Your task to perform on an android device: Open Google Chrome and click the shortcut for Amazon.com Image 0: 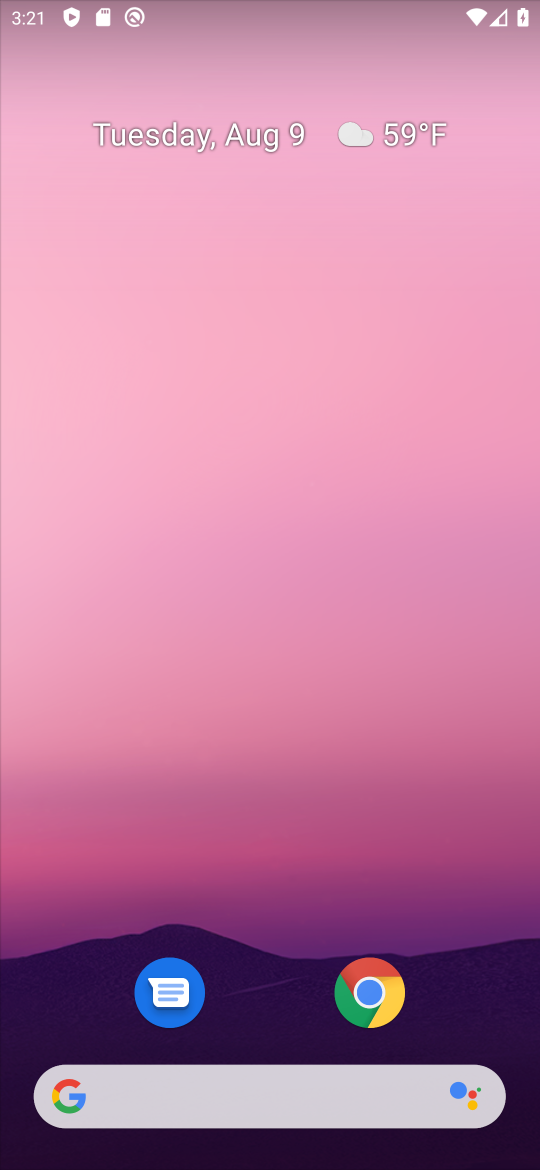
Step 0: click (357, 982)
Your task to perform on an android device: Open Google Chrome and click the shortcut for Amazon.com Image 1: 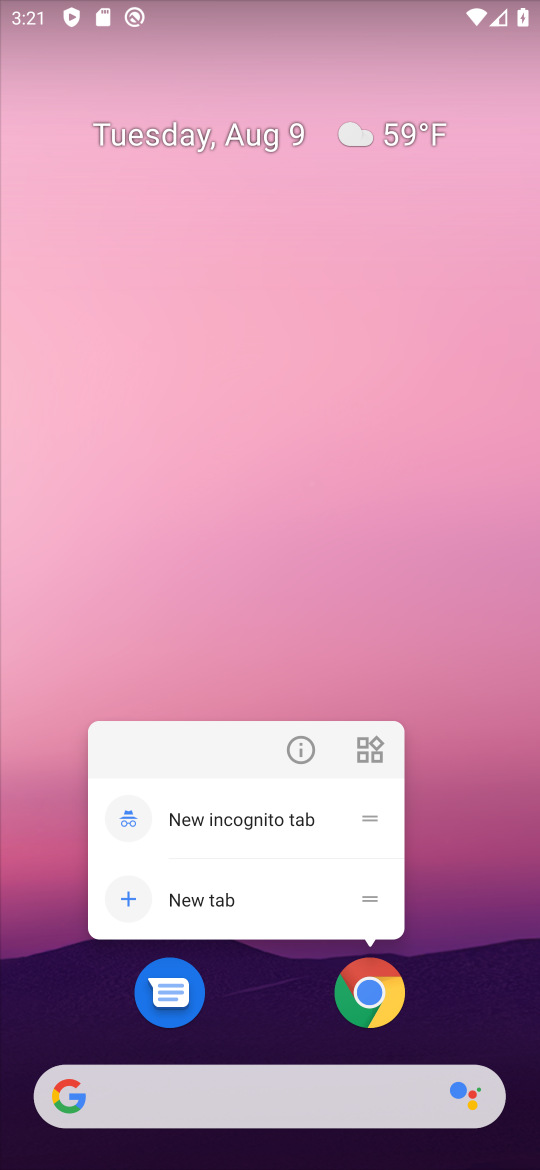
Step 1: click (374, 988)
Your task to perform on an android device: Open Google Chrome and click the shortcut for Amazon.com Image 2: 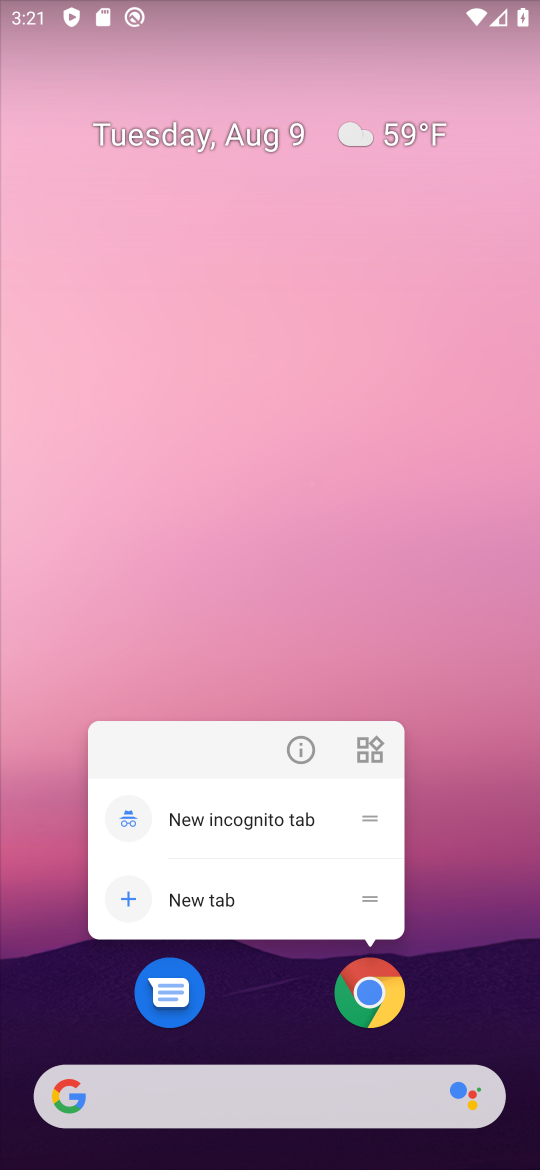
Step 2: click (388, 1000)
Your task to perform on an android device: Open Google Chrome and click the shortcut for Amazon.com Image 3: 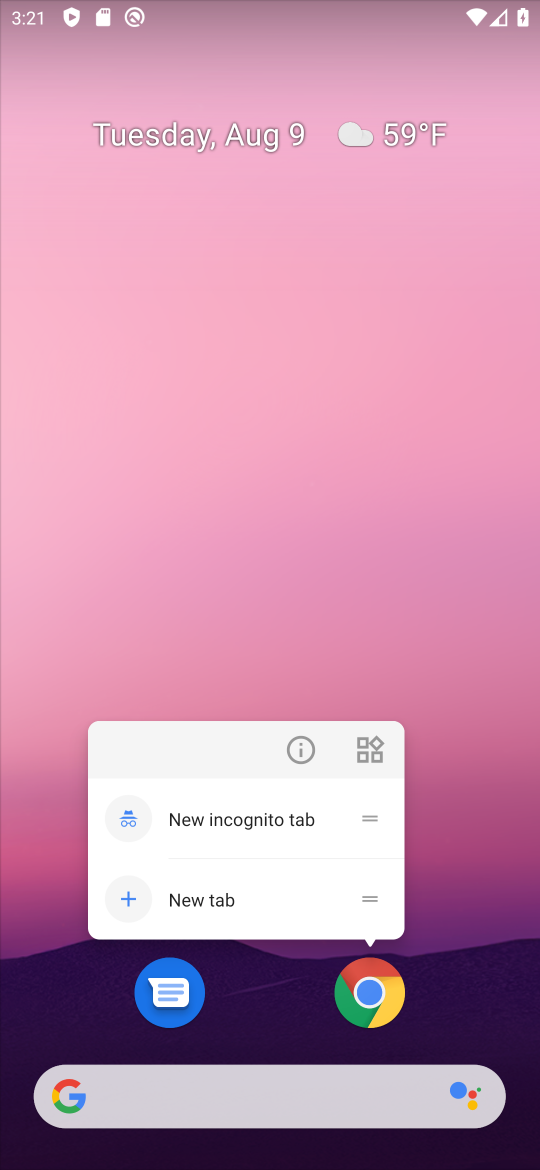
Step 3: click (385, 983)
Your task to perform on an android device: Open Google Chrome and click the shortcut for Amazon.com Image 4: 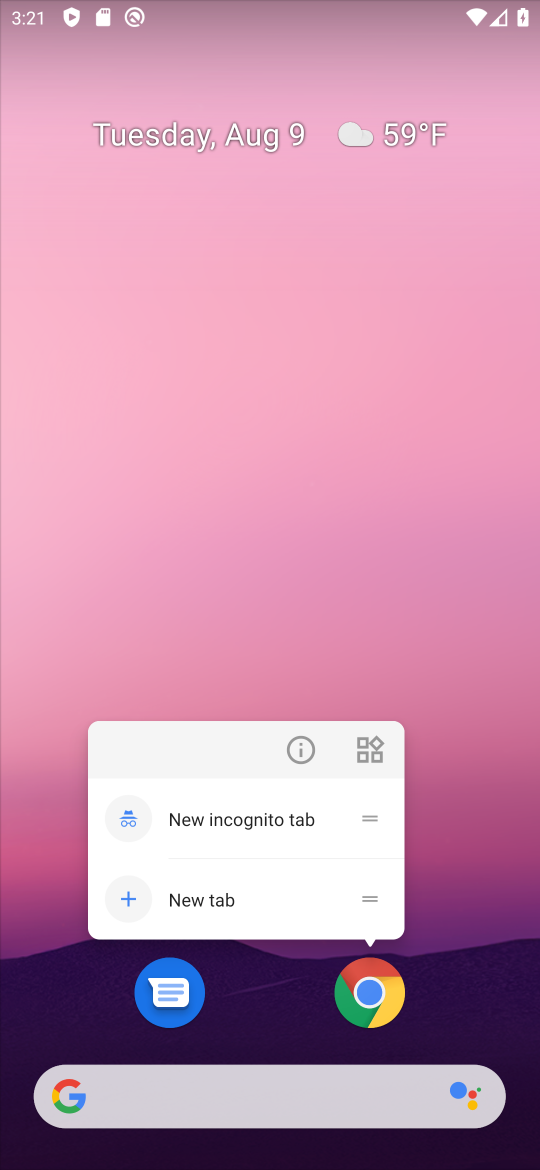
Step 4: click (377, 985)
Your task to perform on an android device: Open Google Chrome and click the shortcut for Amazon.com Image 5: 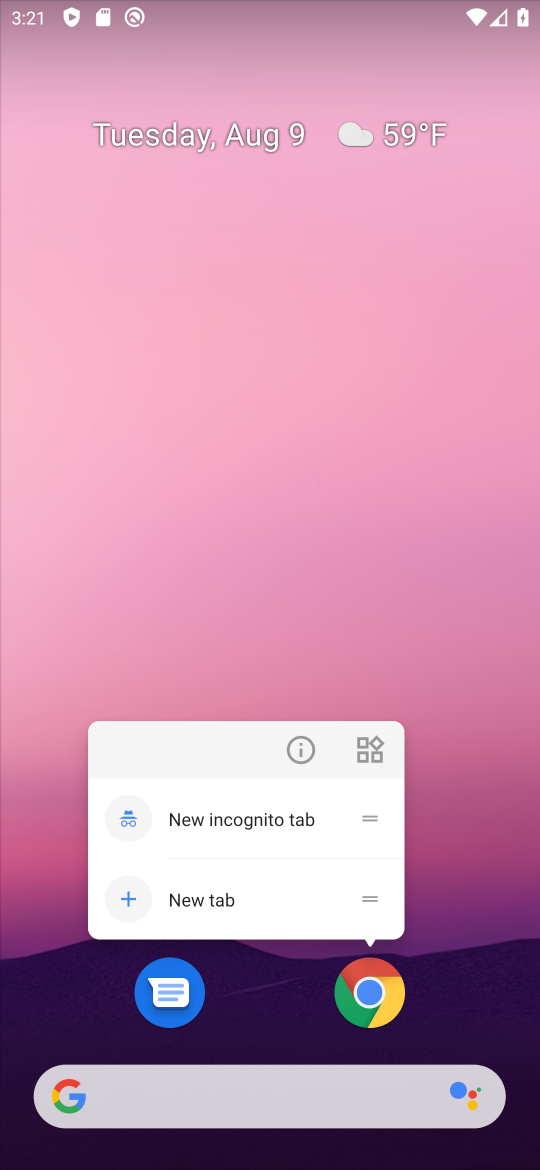
Step 5: click (377, 985)
Your task to perform on an android device: Open Google Chrome and click the shortcut for Amazon.com Image 6: 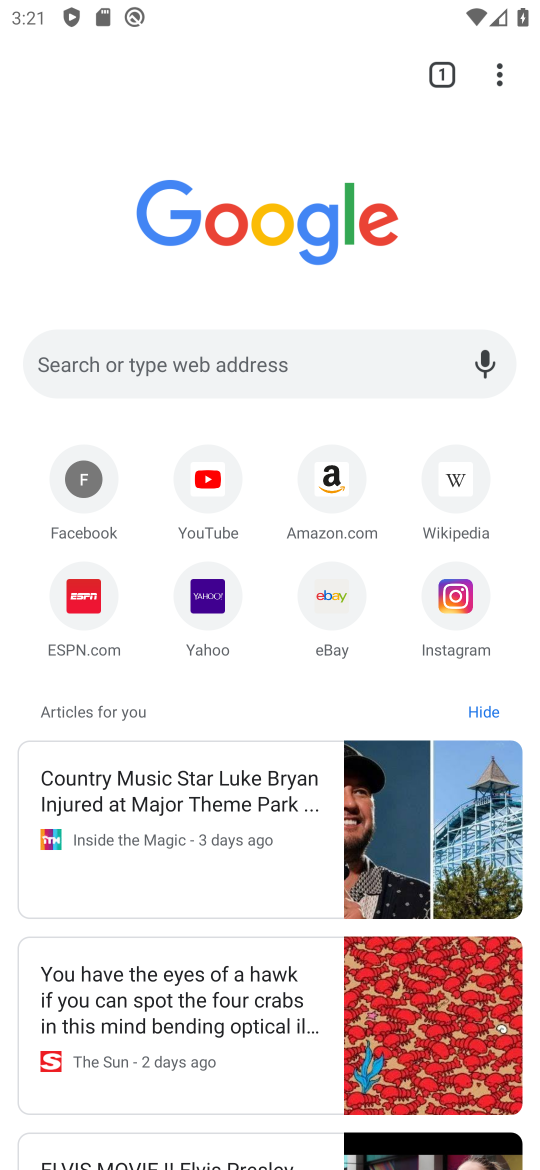
Step 6: click (331, 481)
Your task to perform on an android device: Open Google Chrome and click the shortcut for Amazon.com Image 7: 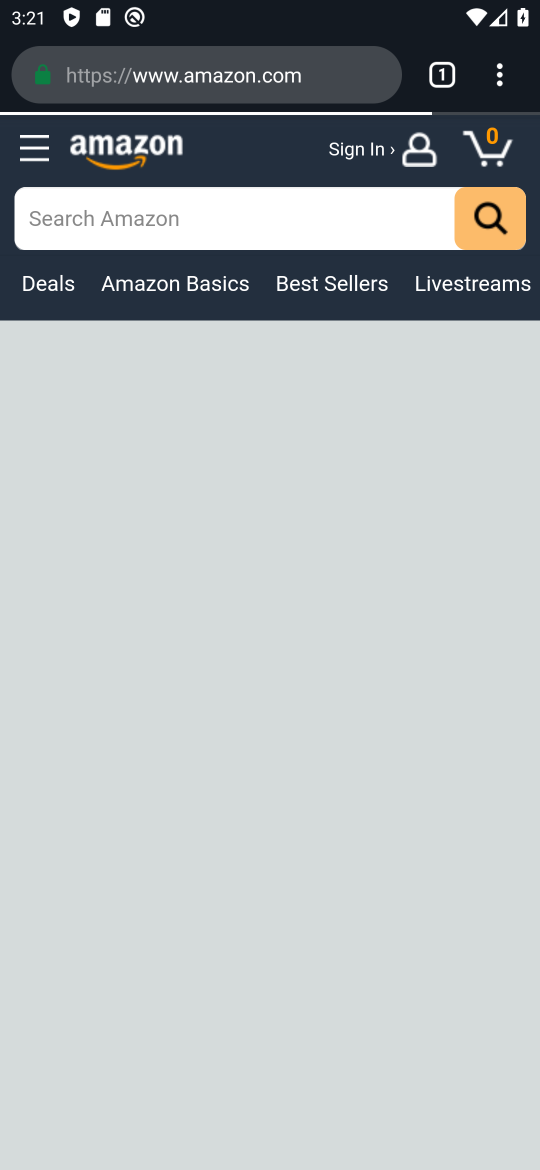
Step 7: task complete